Your task to perform on an android device: open app "Google Translate" Image 0: 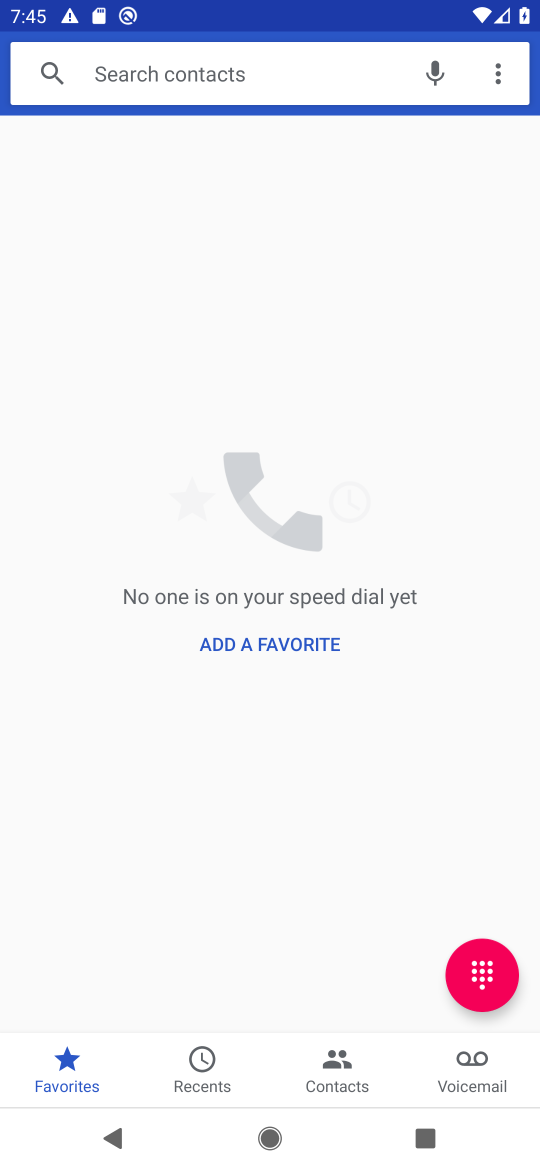
Step 0: press home button
Your task to perform on an android device: open app "Google Translate" Image 1: 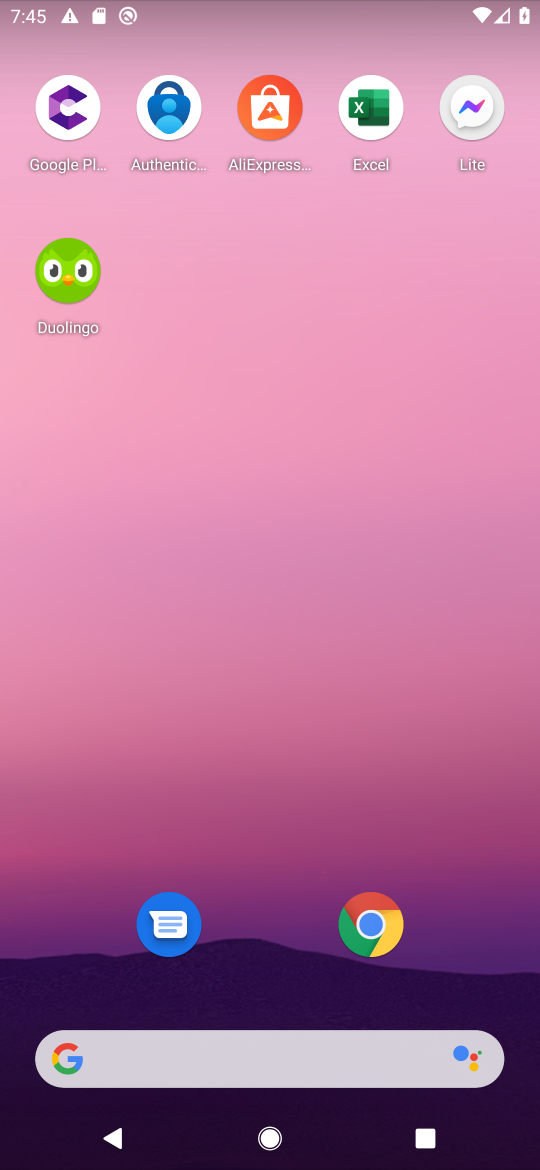
Step 1: click (292, 591)
Your task to perform on an android device: open app "Google Translate" Image 2: 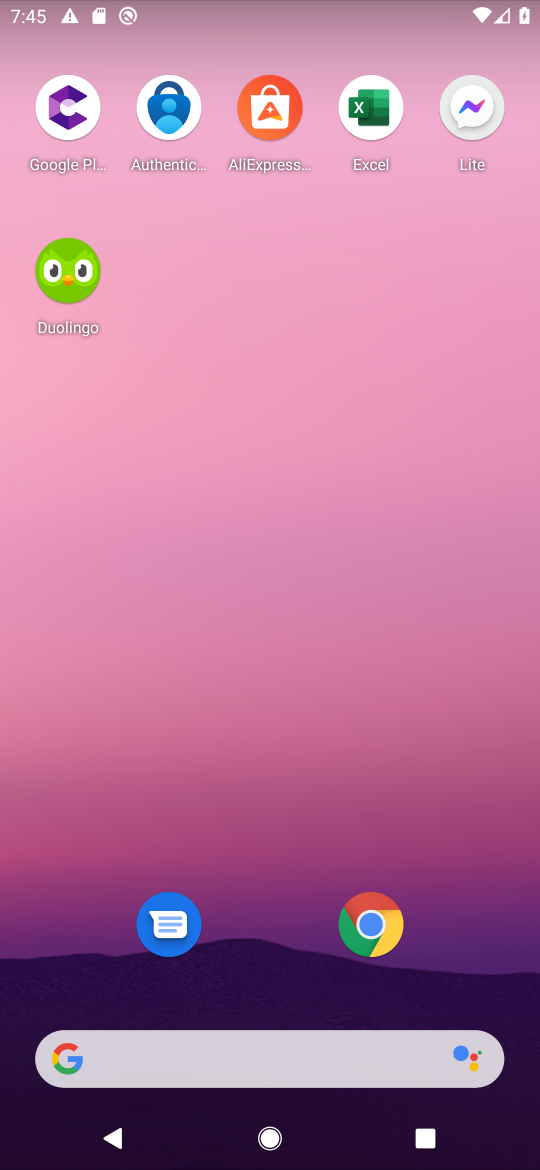
Step 2: click (255, 942)
Your task to perform on an android device: open app "Google Translate" Image 3: 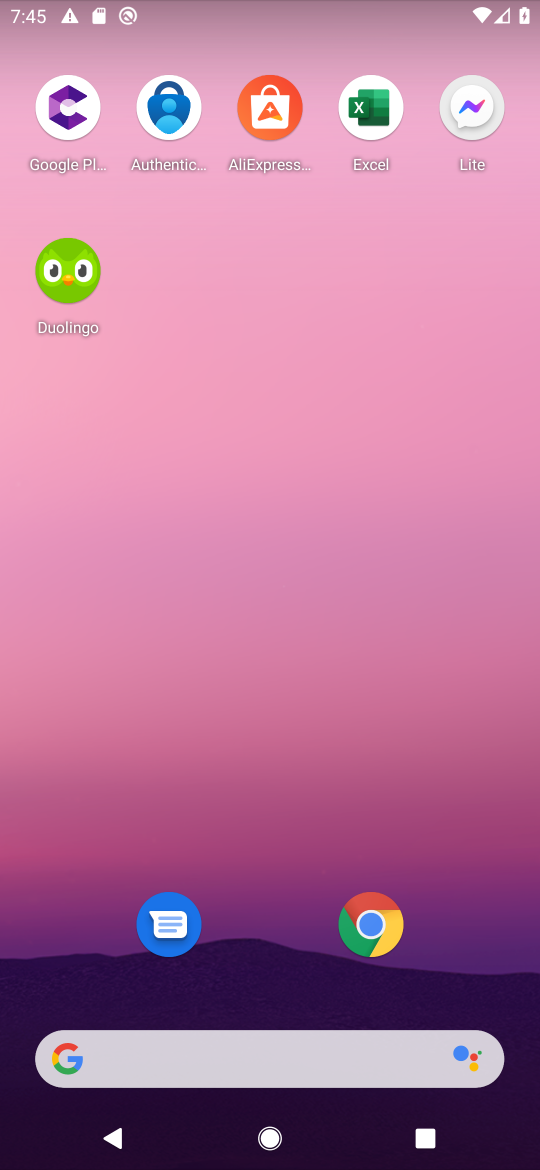
Step 3: drag from (280, 1010) to (320, 385)
Your task to perform on an android device: open app "Google Translate" Image 4: 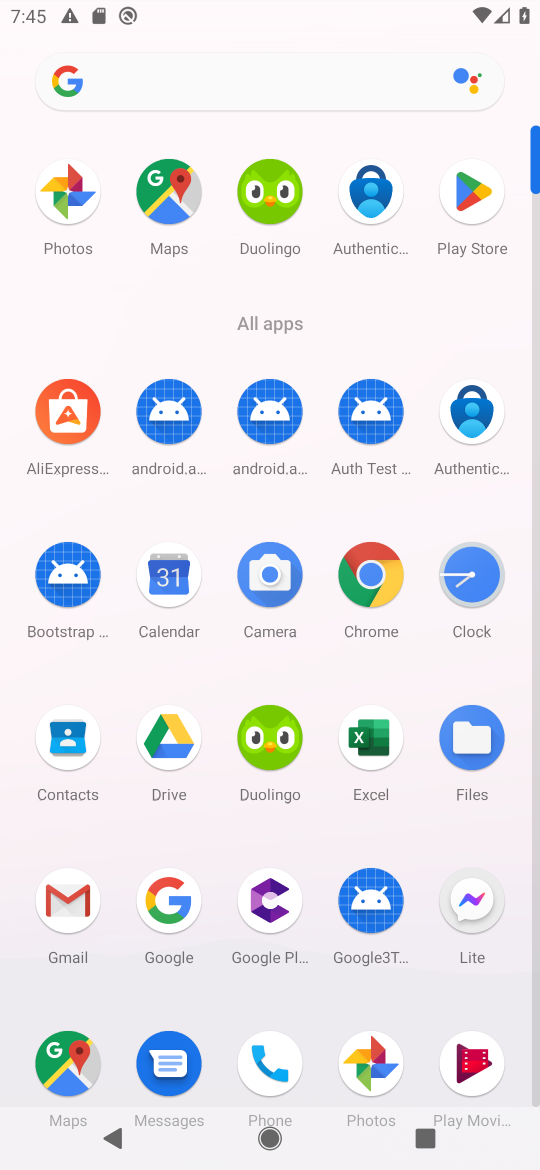
Step 4: click (456, 188)
Your task to perform on an android device: open app "Google Translate" Image 5: 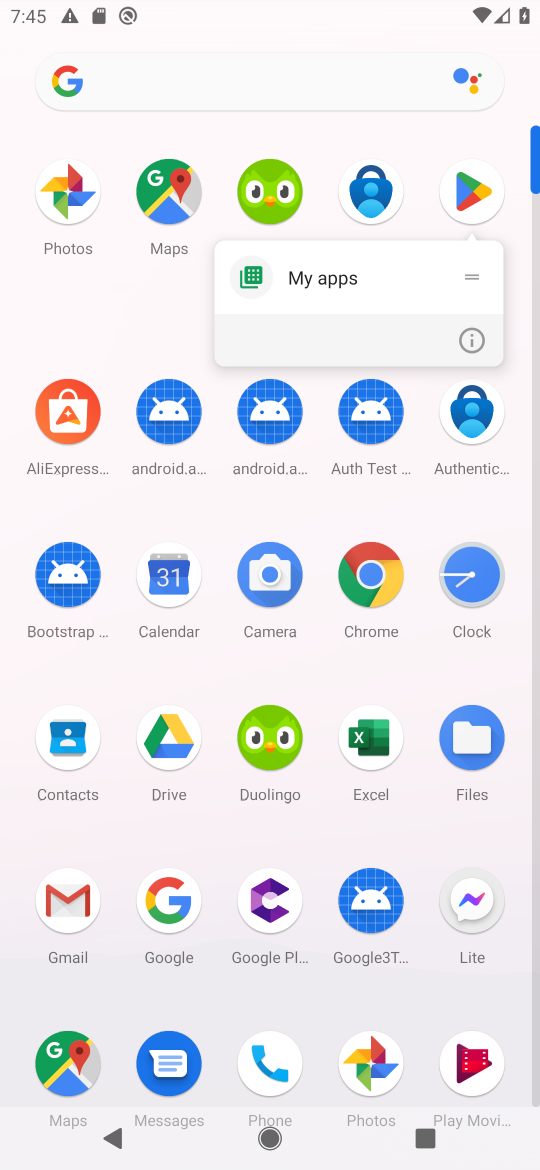
Step 5: click (470, 191)
Your task to perform on an android device: open app "Google Translate" Image 6: 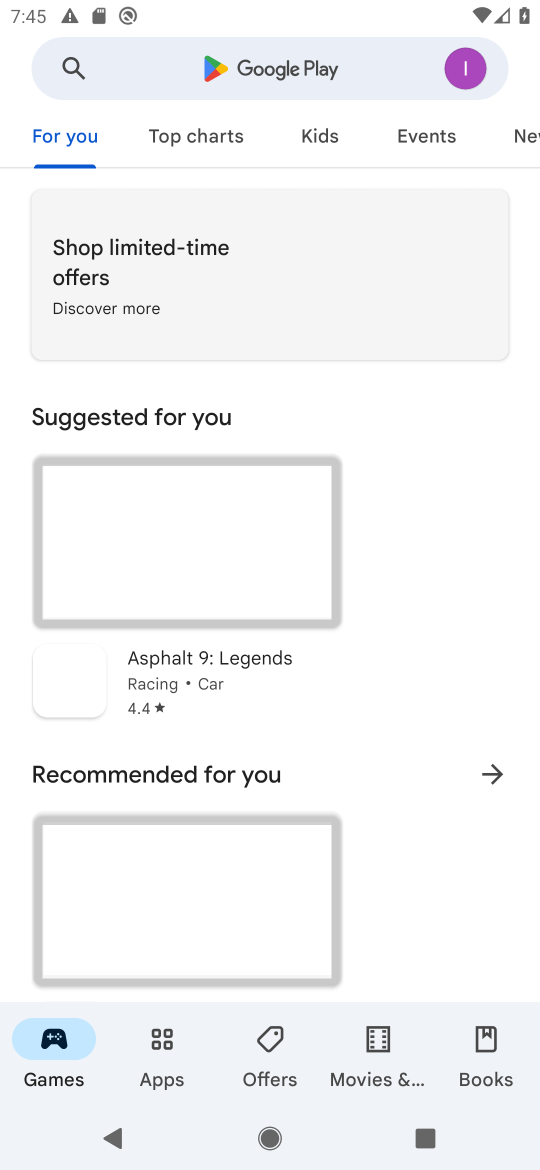
Step 6: click (177, 81)
Your task to perform on an android device: open app "Google Translate" Image 7: 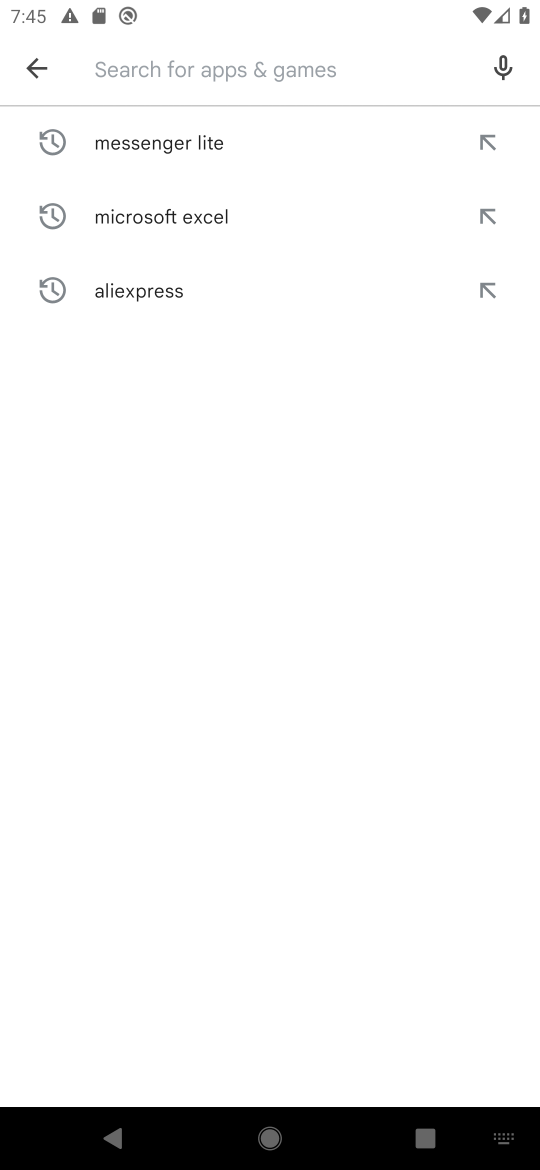
Step 7: click (170, 60)
Your task to perform on an android device: open app "Google Translate" Image 8: 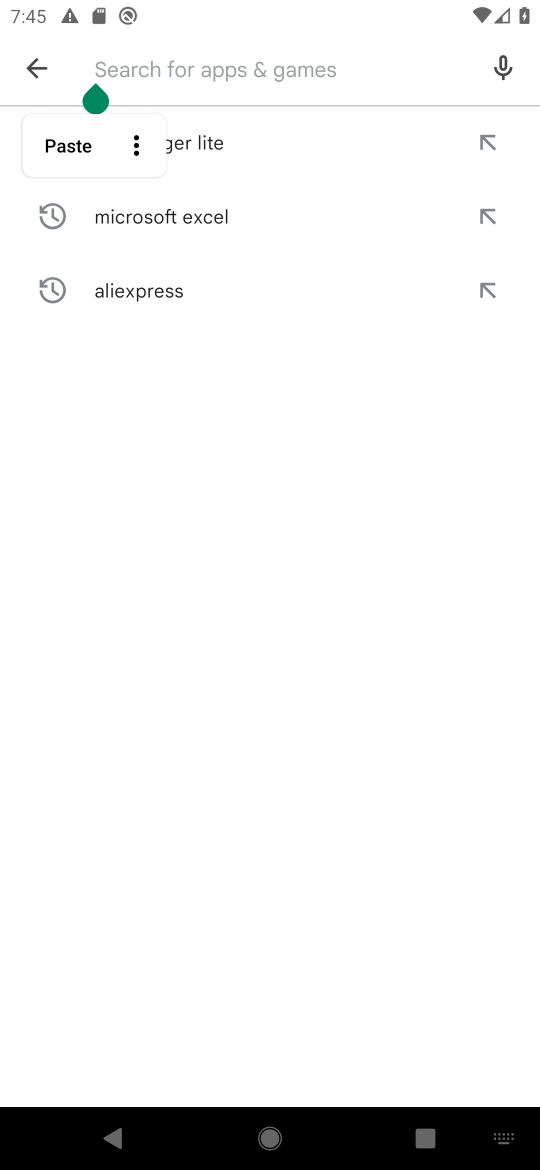
Step 8: click (170, 60)
Your task to perform on an android device: open app "Google Translate" Image 9: 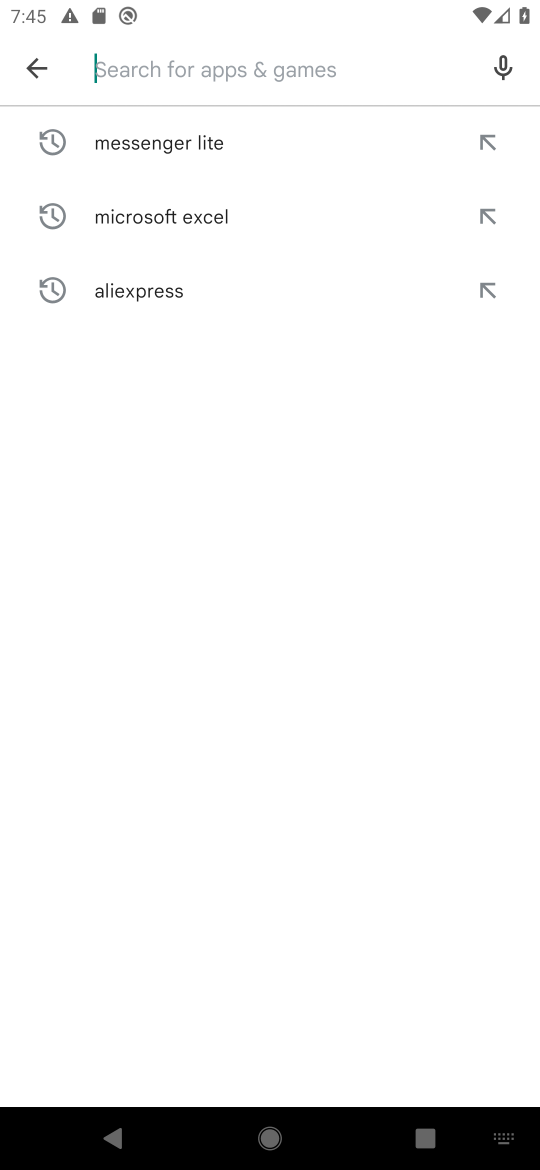
Step 9: click (104, 77)
Your task to perform on an android device: open app "Google Translate" Image 10: 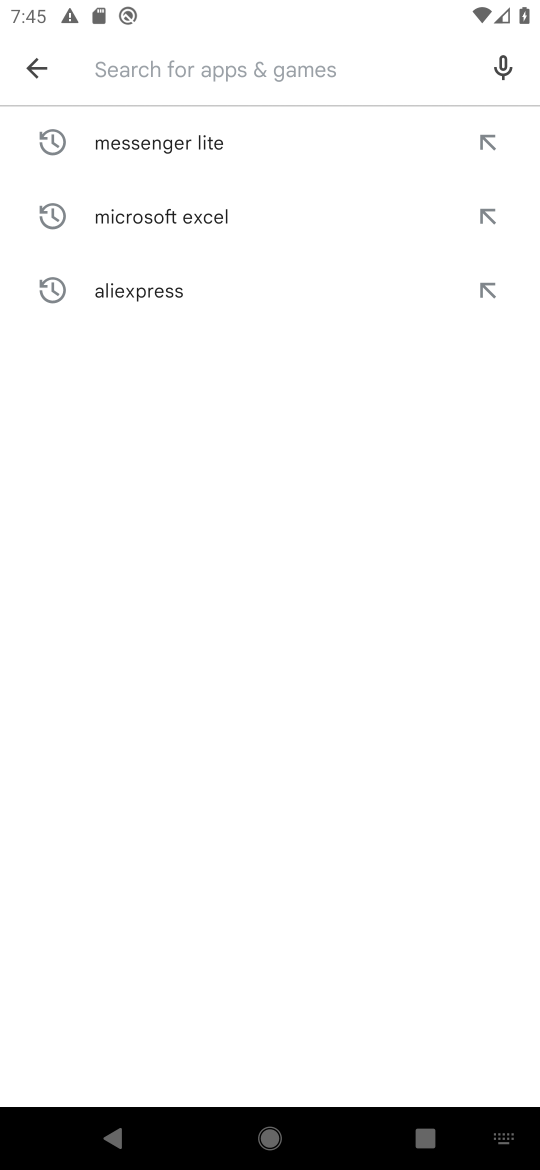
Step 10: type "Google Translate"
Your task to perform on an android device: open app "Google Translate" Image 11: 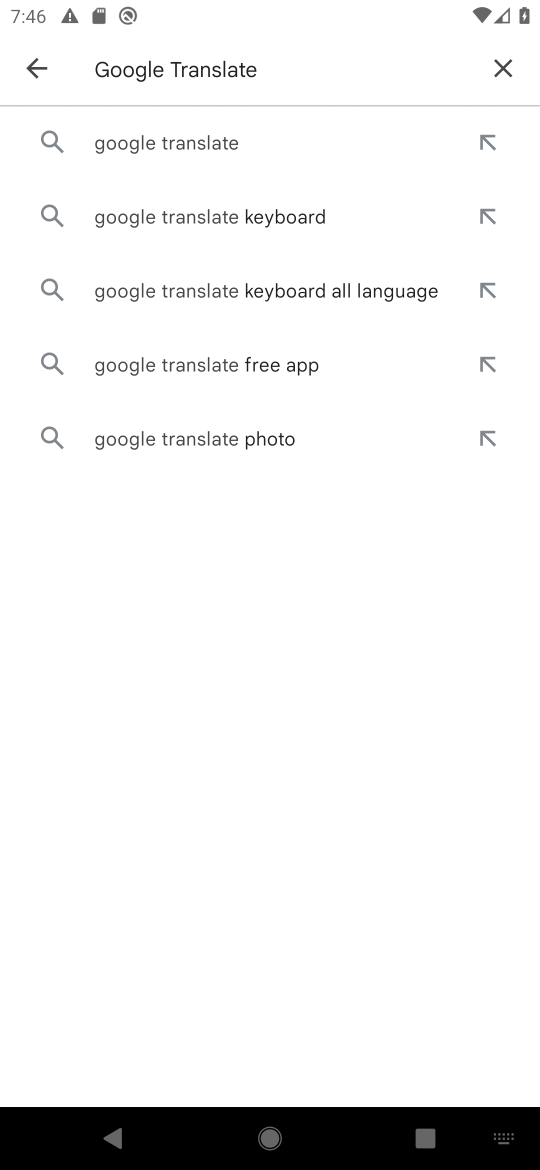
Step 11: click (202, 142)
Your task to perform on an android device: open app "Google Translate" Image 12: 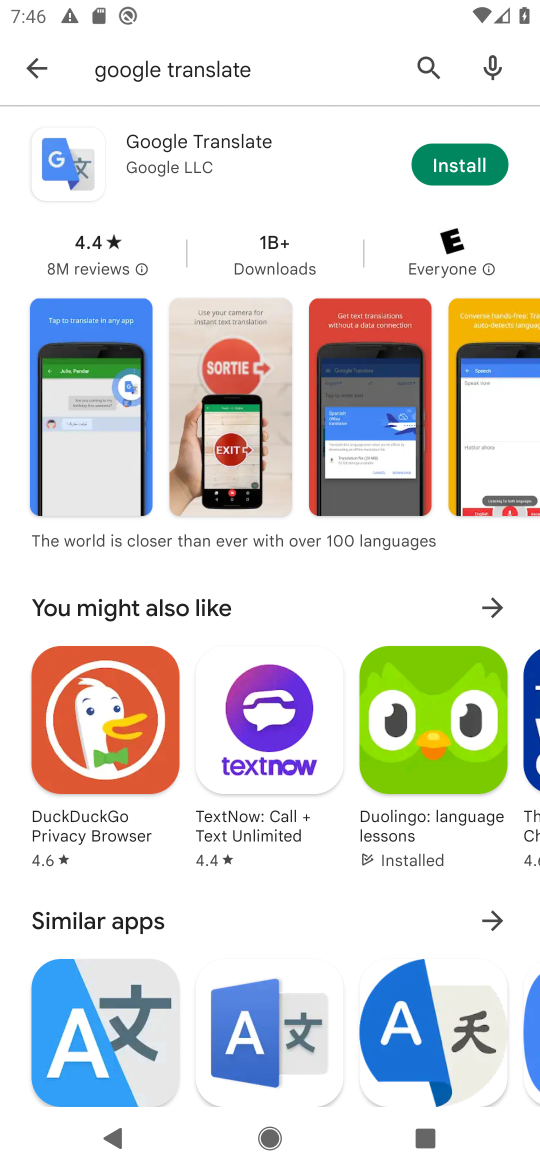
Step 12: click (478, 173)
Your task to perform on an android device: open app "Google Translate" Image 13: 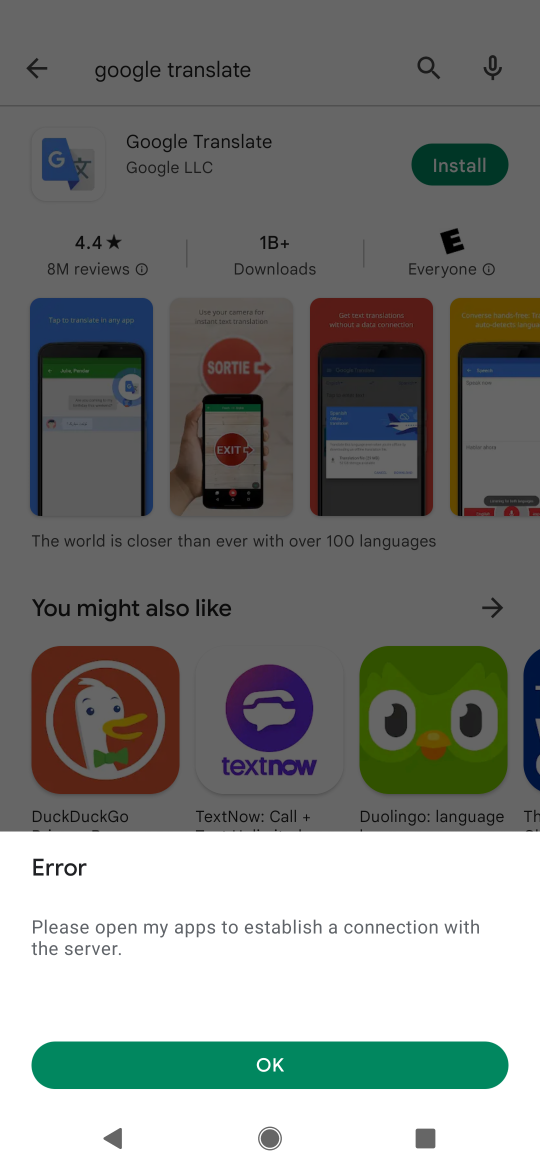
Step 13: task complete